Your task to perform on an android device: Go to battery settings Image 0: 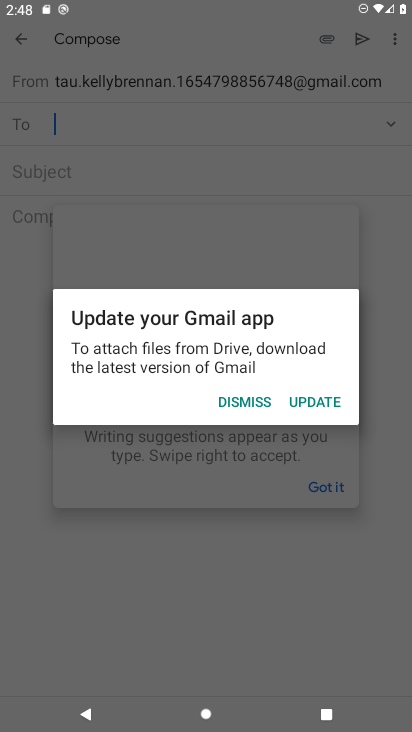
Step 0: press home button
Your task to perform on an android device: Go to battery settings Image 1: 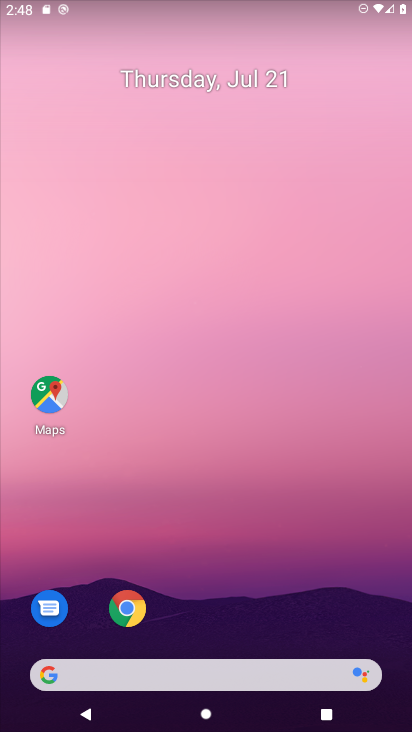
Step 1: drag from (200, 605) to (224, 244)
Your task to perform on an android device: Go to battery settings Image 2: 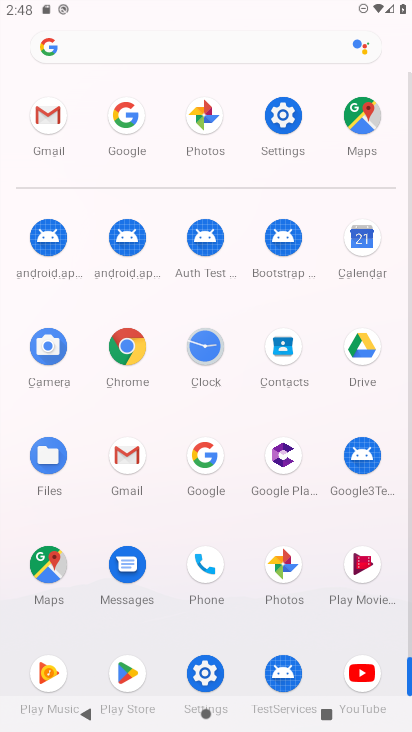
Step 2: click (280, 134)
Your task to perform on an android device: Go to battery settings Image 3: 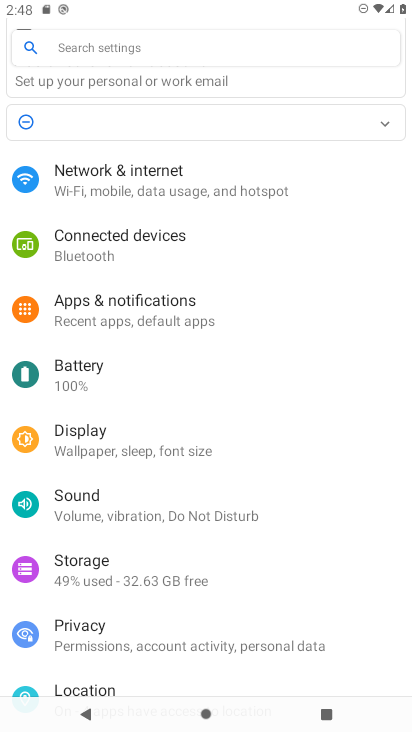
Step 3: click (107, 373)
Your task to perform on an android device: Go to battery settings Image 4: 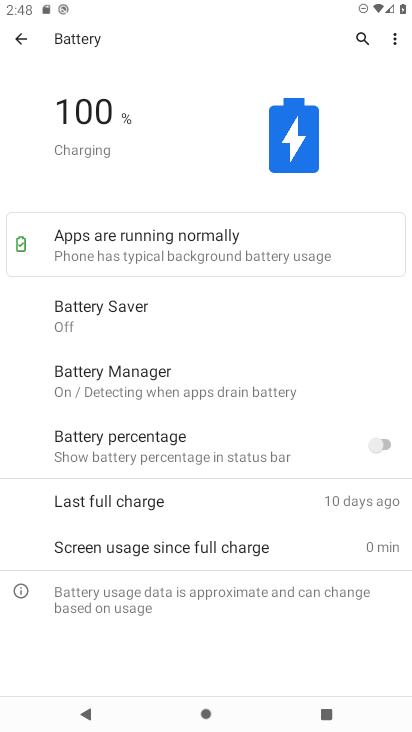
Step 4: task complete